Your task to perform on an android device: Search for hotels in London Image 0: 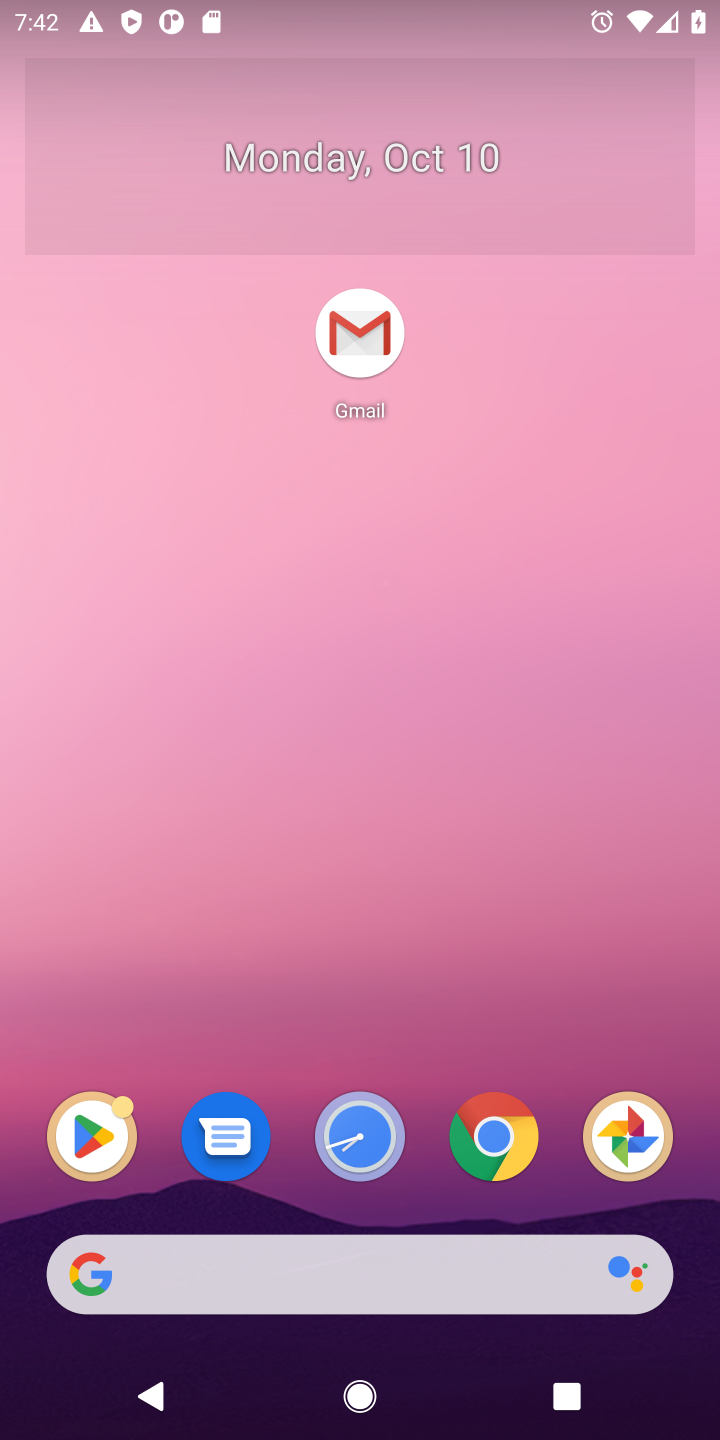
Step 0: drag from (339, 1220) to (276, 215)
Your task to perform on an android device: Search for hotels in London Image 1: 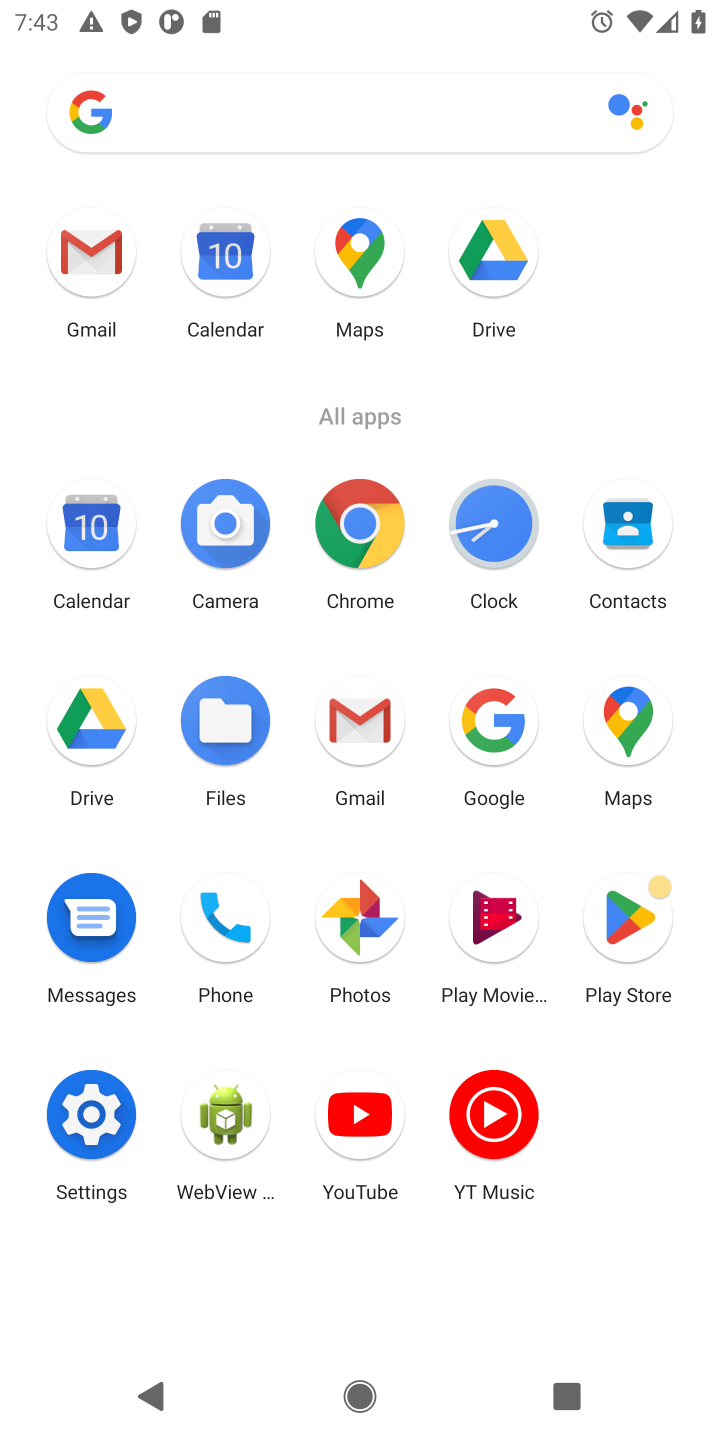
Step 1: click (369, 523)
Your task to perform on an android device: Search for hotels in London Image 2: 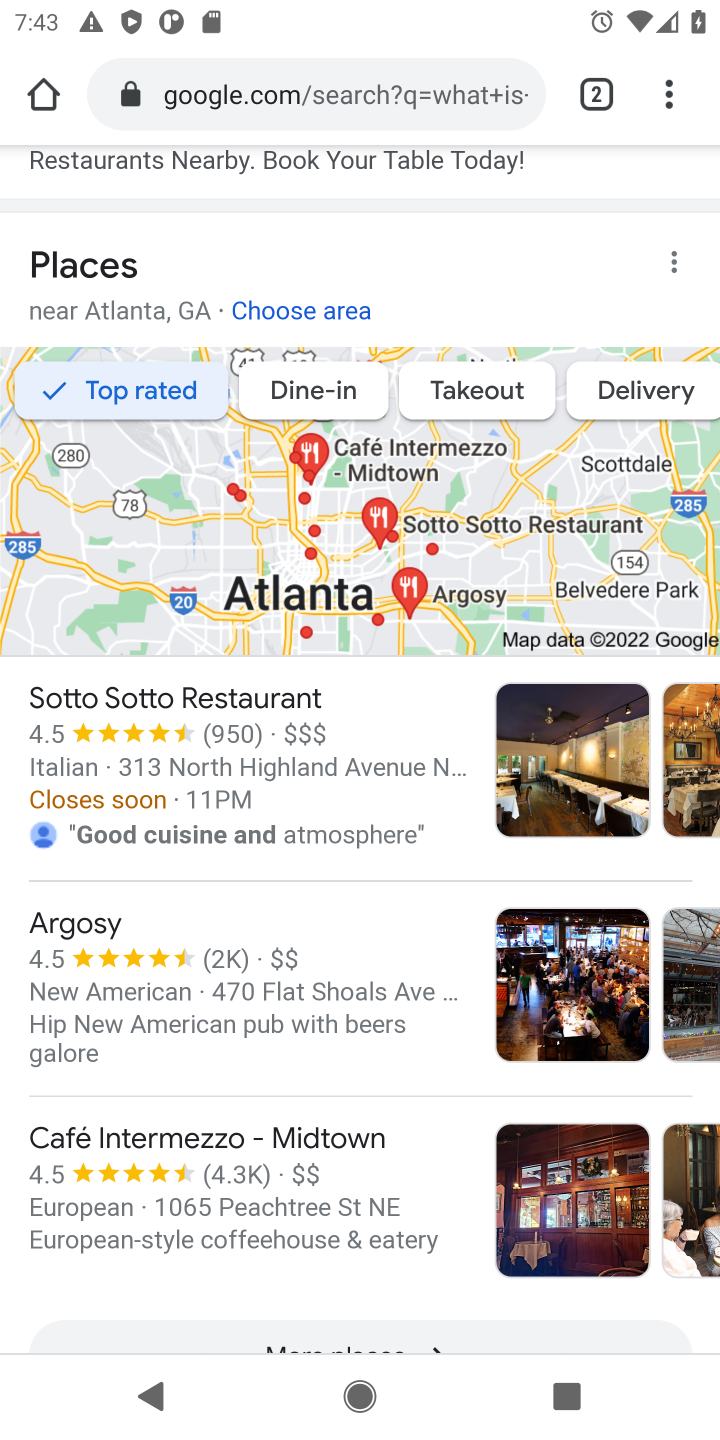
Step 2: drag from (360, 304) to (384, 1243)
Your task to perform on an android device: Search for hotels in London Image 3: 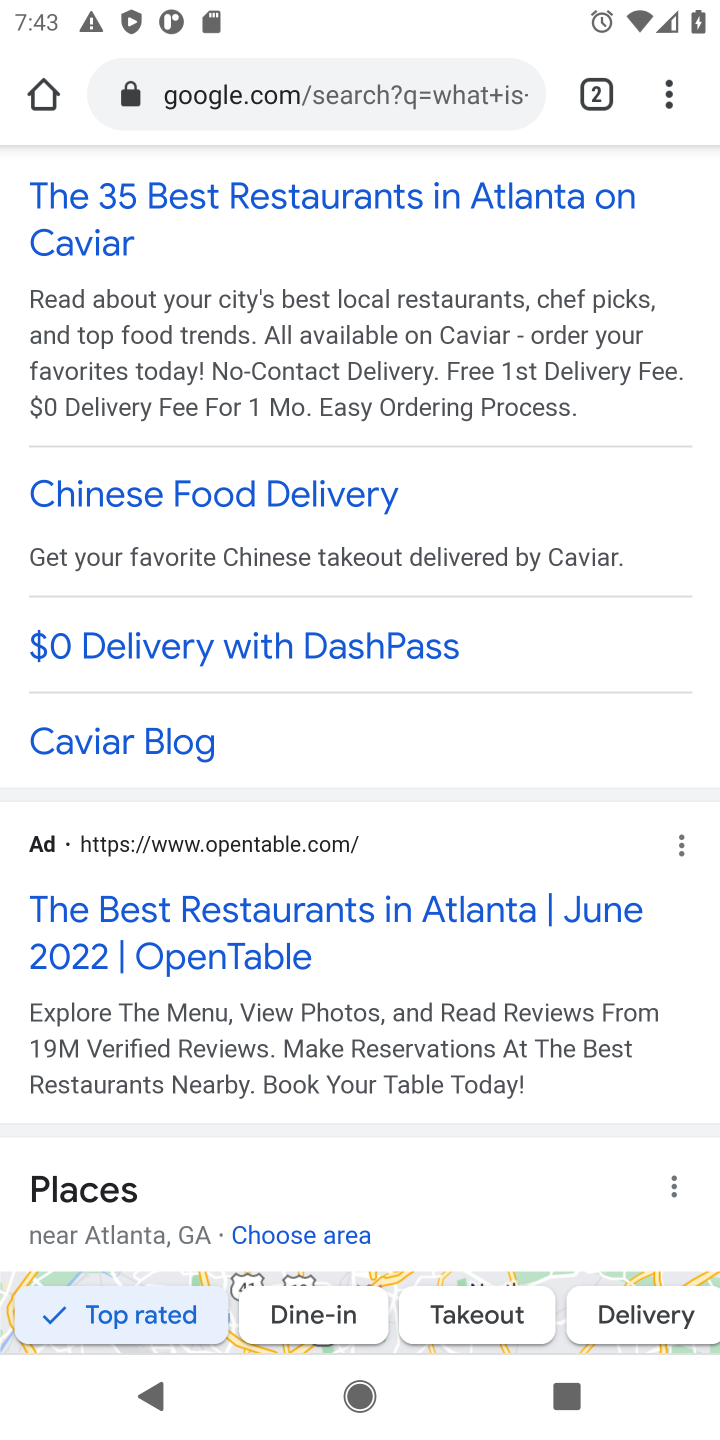
Step 3: drag from (351, 294) to (392, 1016)
Your task to perform on an android device: Search for hotels in London Image 4: 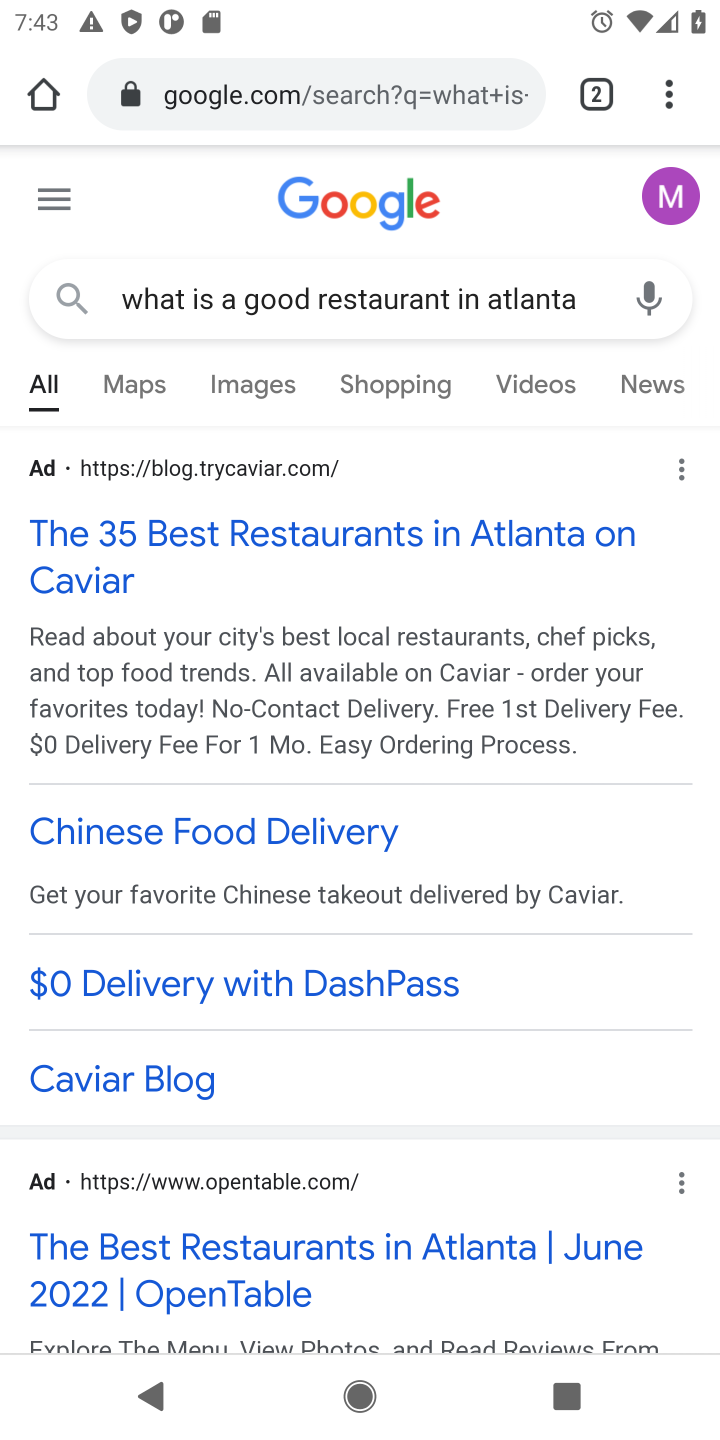
Step 4: click (429, 286)
Your task to perform on an android device: Search for hotels in London Image 5: 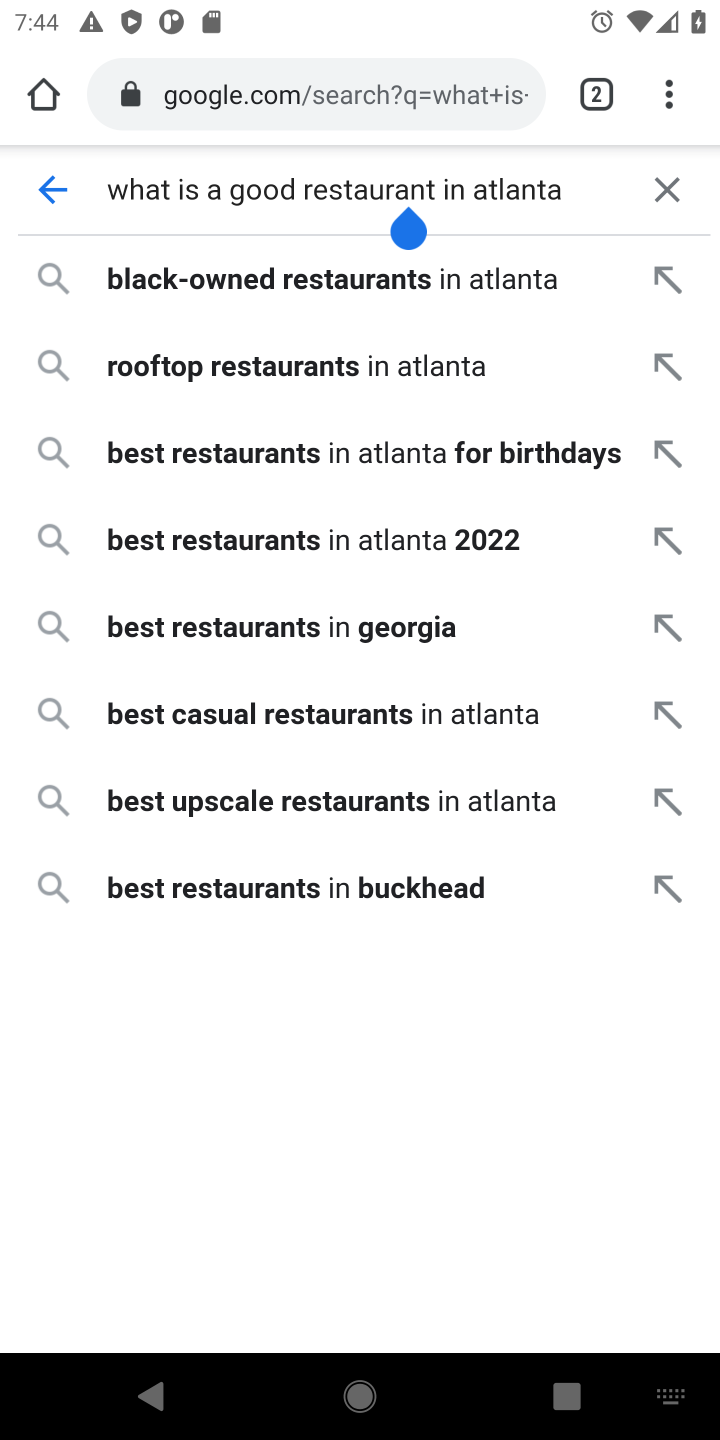
Step 5: click (658, 186)
Your task to perform on an android device: Search for hotels in London Image 6: 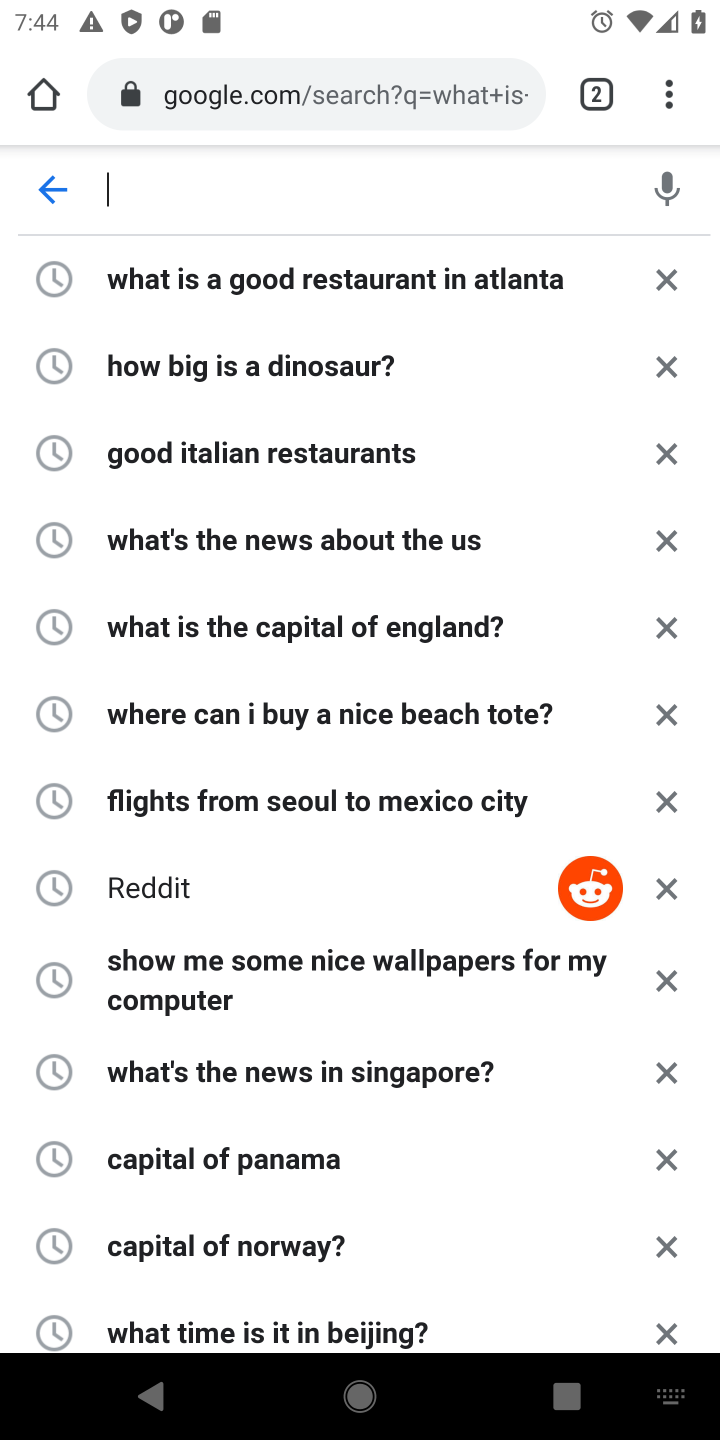
Step 6: type "Search for hotels in London"
Your task to perform on an android device: Search for hotels in London Image 7: 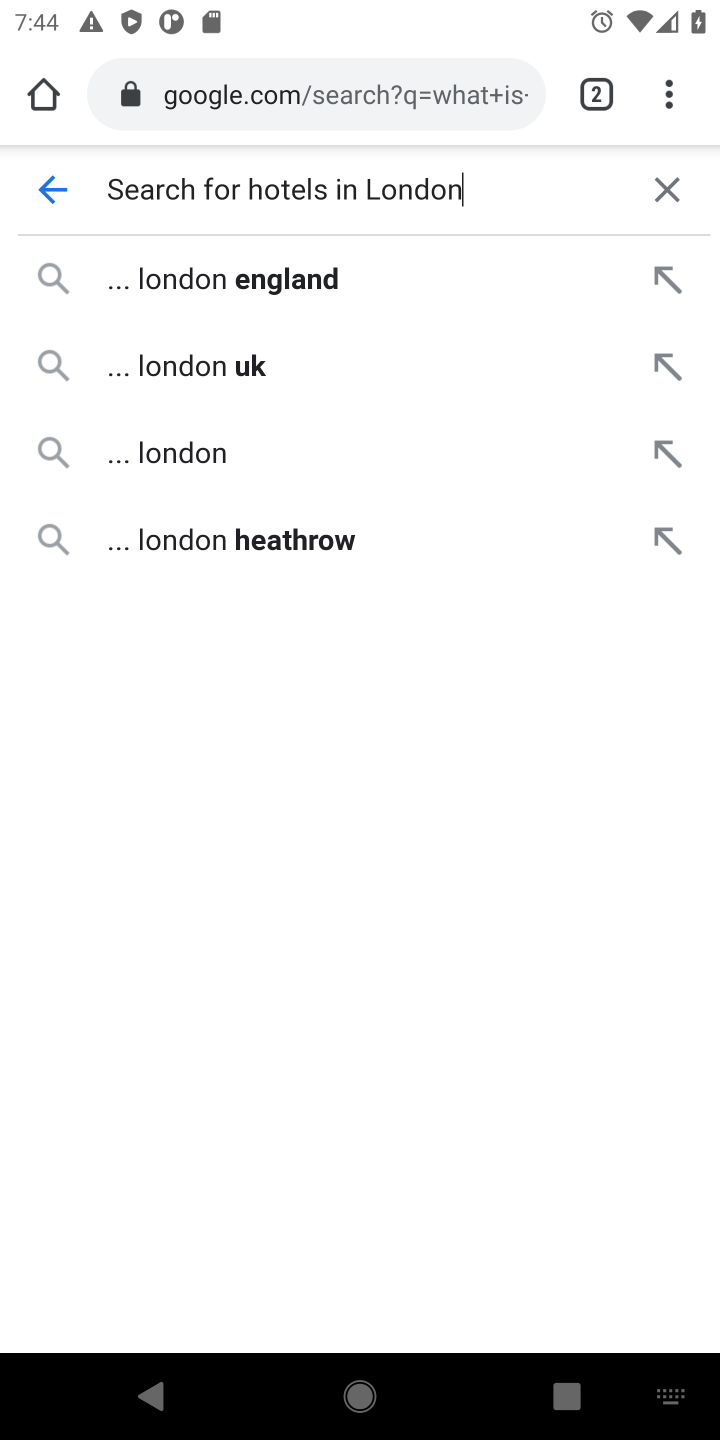
Step 7: click (220, 459)
Your task to perform on an android device: Search for hotels in London Image 8: 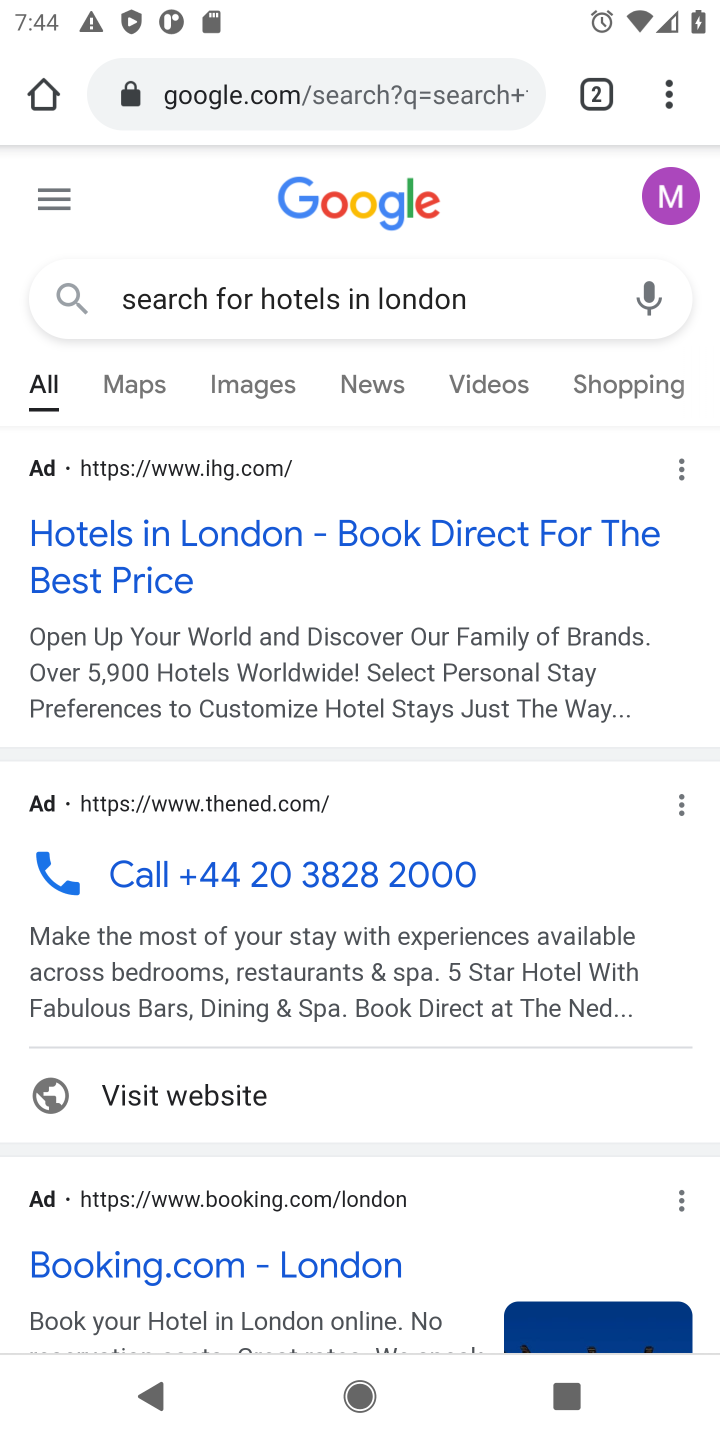
Step 8: task complete